Your task to perform on an android device: What's the weather going to be tomorrow? Image 0: 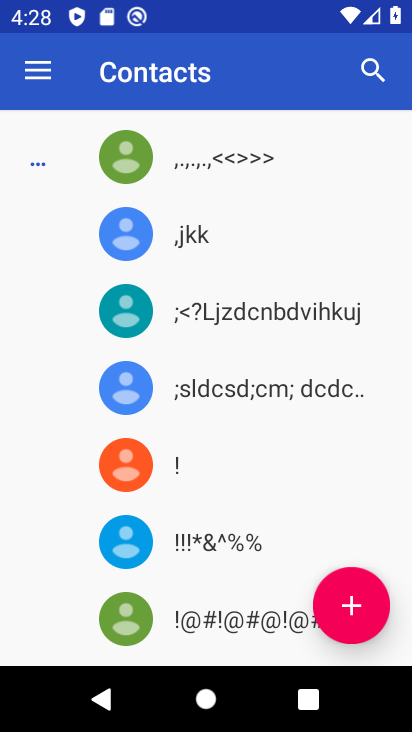
Step 0: press home button
Your task to perform on an android device: What's the weather going to be tomorrow? Image 1: 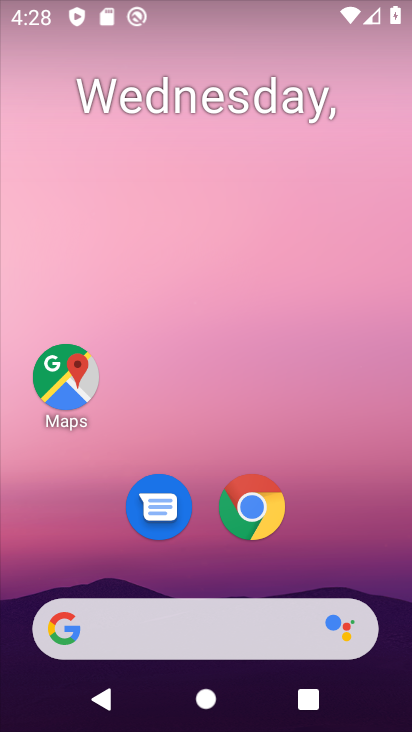
Step 1: drag from (350, 355) to (347, 0)
Your task to perform on an android device: What's the weather going to be tomorrow? Image 2: 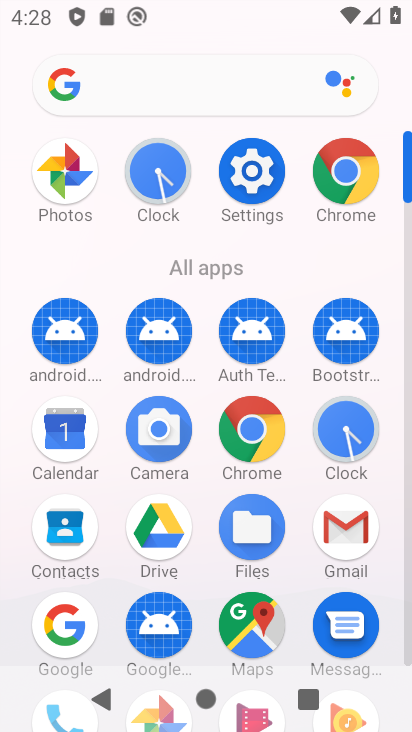
Step 2: click (64, 81)
Your task to perform on an android device: What's the weather going to be tomorrow? Image 3: 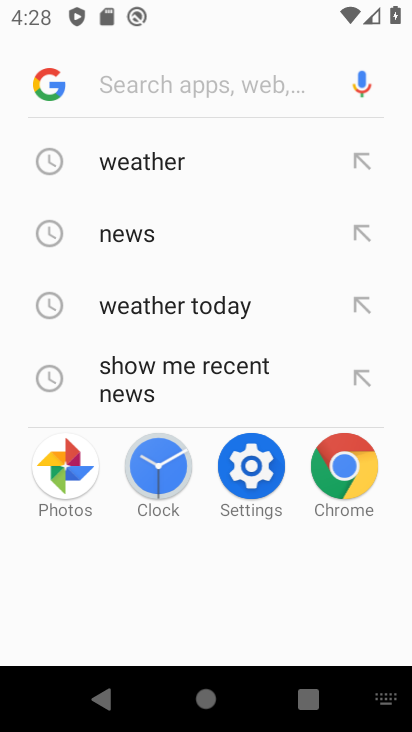
Step 3: click (55, 87)
Your task to perform on an android device: What's the weather going to be tomorrow? Image 4: 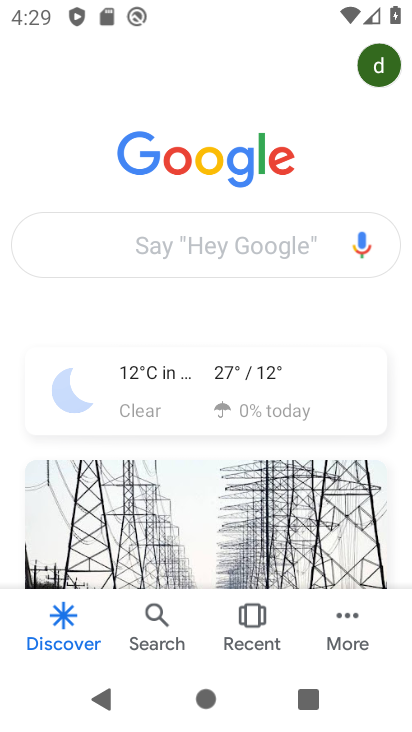
Step 4: click (230, 369)
Your task to perform on an android device: What's the weather going to be tomorrow? Image 5: 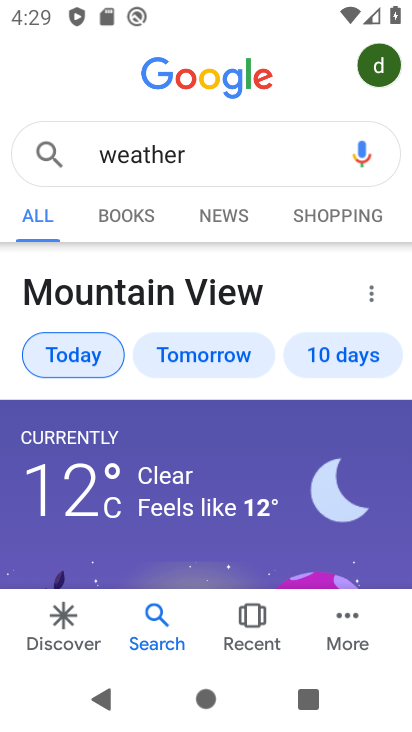
Step 5: click (209, 357)
Your task to perform on an android device: What's the weather going to be tomorrow? Image 6: 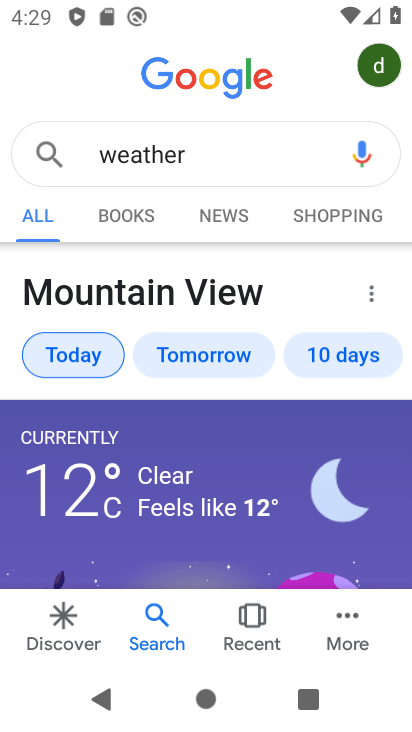
Step 6: click (209, 357)
Your task to perform on an android device: What's the weather going to be tomorrow? Image 7: 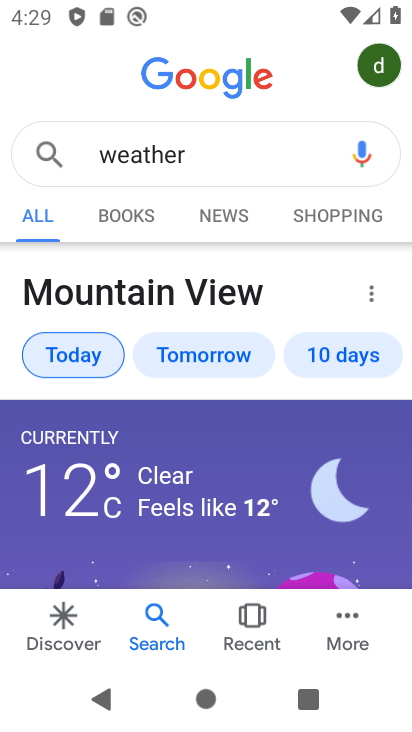
Step 7: click (209, 357)
Your task to perform on an android device: What's the weather going to be tomorrow? Image 8: 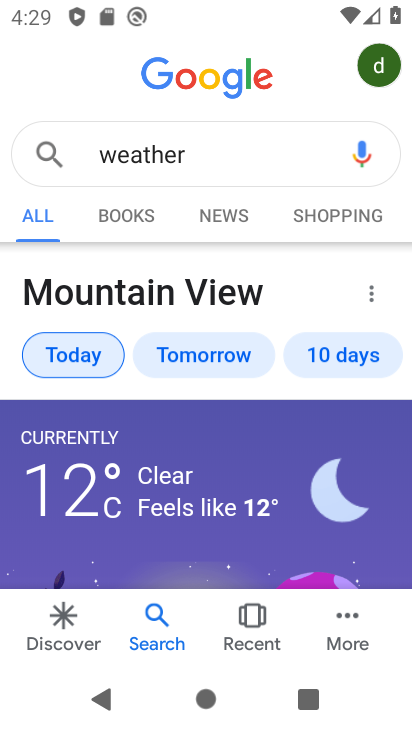
Step 8: click (209, 357)
Your task to perform on an android device: What's the weather going to be tomorrow? Image 9: 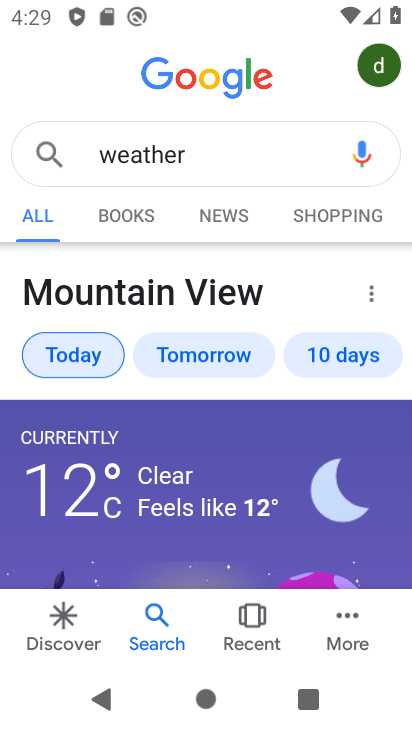
Step 9: click (211, 351)
Your task to perform on an android device: What's the weather going to be tomorrow? Image 10: 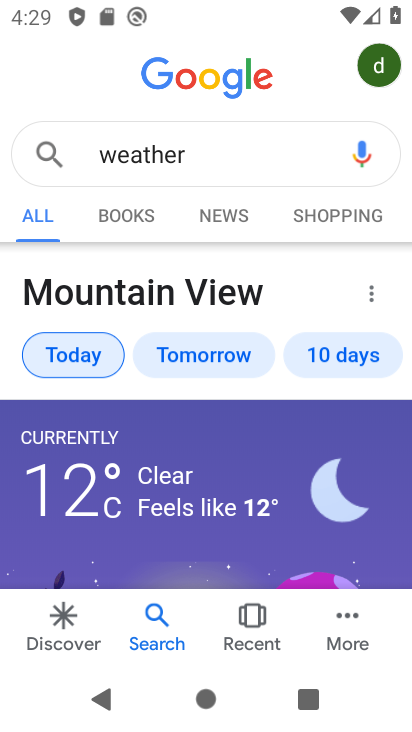
Step 10: task complete